Your task to perform on an android device: Go to Yahoo.com Image 0: 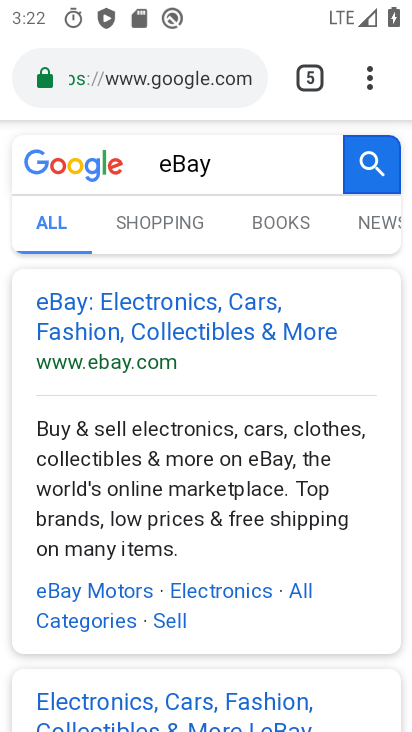
Step 0: press home button
Your task to perform on an android device: Go to Yahoo.com Image 1: 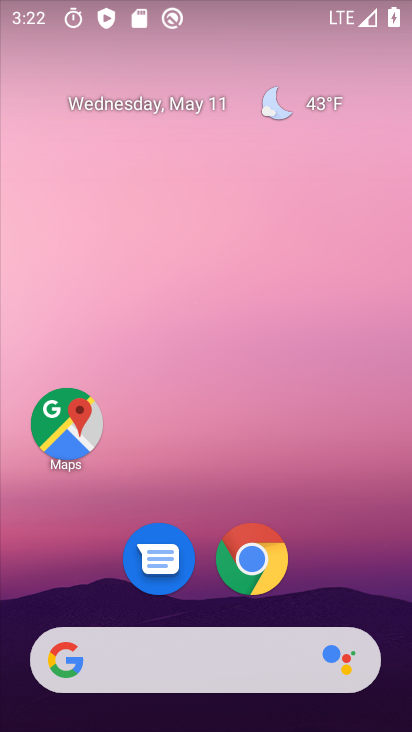
Step 1: click (262, 556)
Your task to perform on an android device: Go to Yahoo.com Image 2: 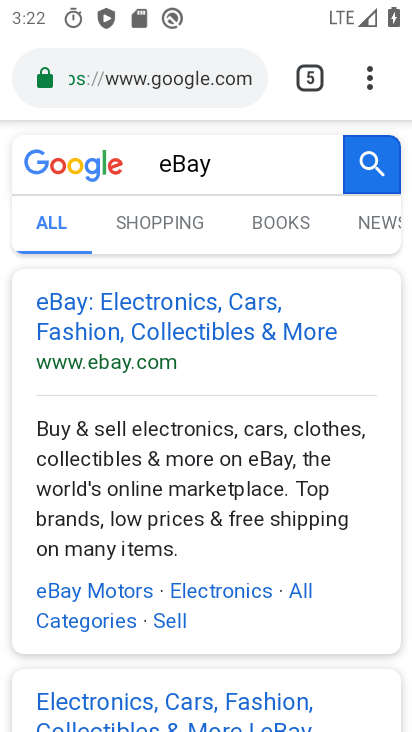
Step 2: click (304, 65)
Your task to perform on an android device: Go to Yahoo.com Image 3: 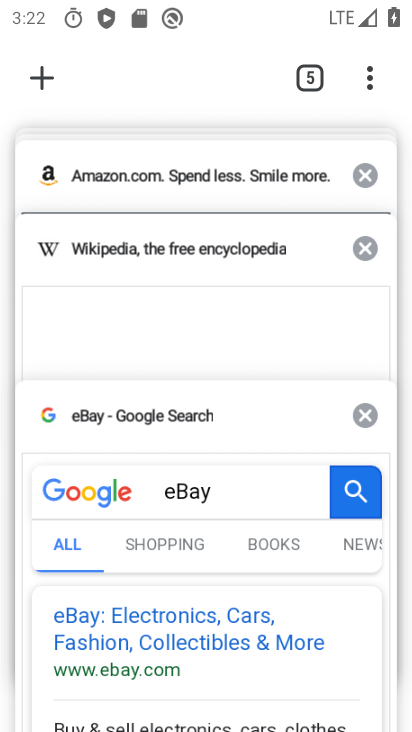
Step 3: drag from (173, 175) to (173, 613)
Your task to perform on an android device: Go to Yahoo.com Image 4: 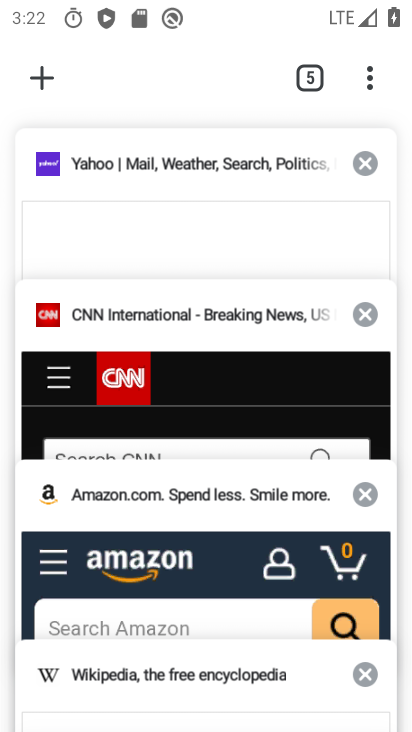
Step 4: click (179, 165)
Your task to perform on an android device: Go to Yahoo.com Image 5: 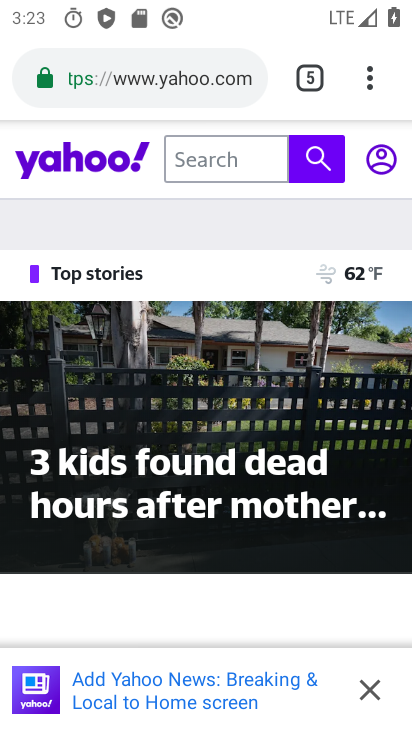
Step 5: task complete